Your task to perform on an android device: Show me the alarms in the clock app Image 0: 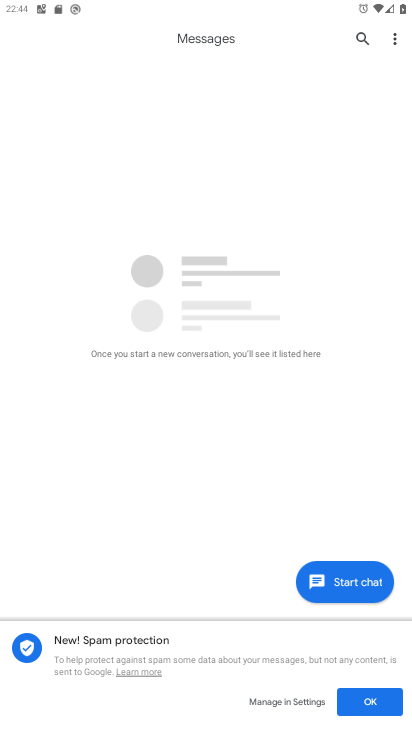
Step 0: press home button
Your task to perform on an android device: Show me the alarms in the clock app Image 1: 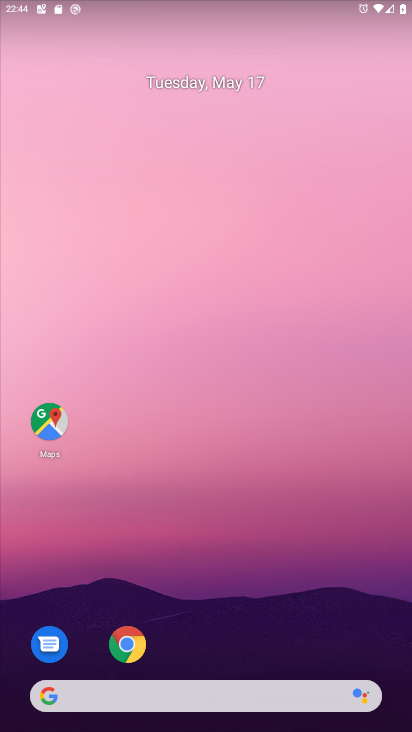
Step 1: drag from (214, 652) to (213, 90)
Your task to perform on an android device: Show me the alarms in the clock app Image 2: 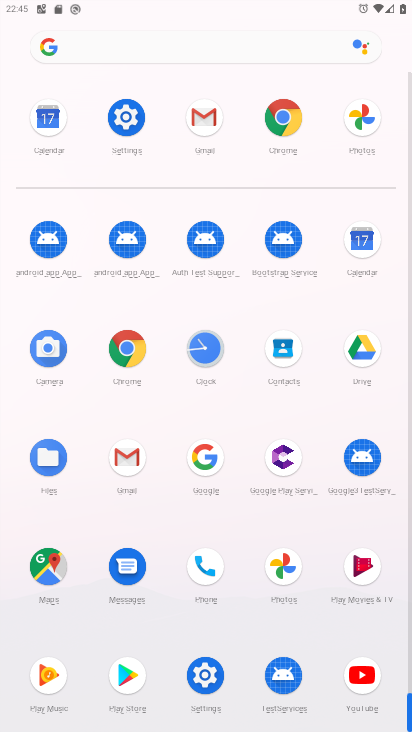
Step 2: click (202, 342)
Your task to perform on an android device: Show me the alarms in the clock app Image 3: 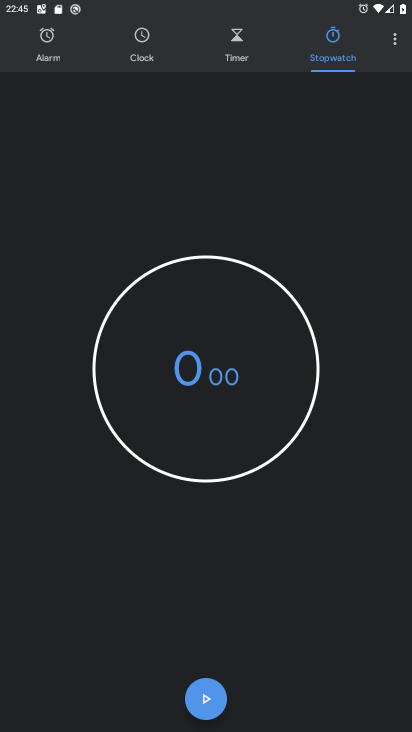
Step 3: click (45, 51)
Your task to perform on an android device: Show me the alarms in the clock app Image 4: 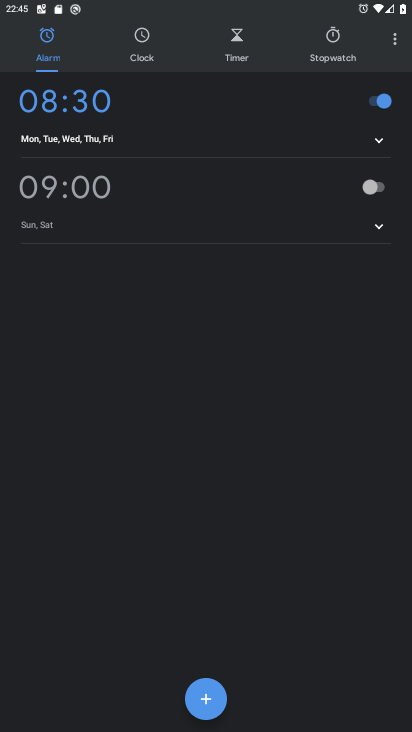
Step 4: task complete